Your task to perform on an android device: all mails in gmail Image 0: 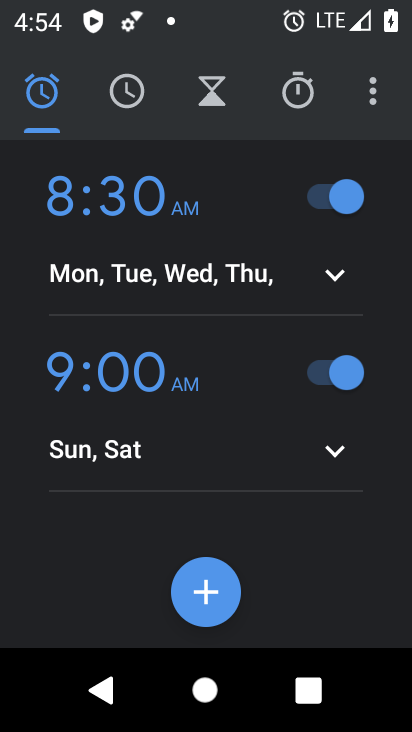
Step 0: press home button
Your task to perform on an android device: all mails in gmail Image 1: 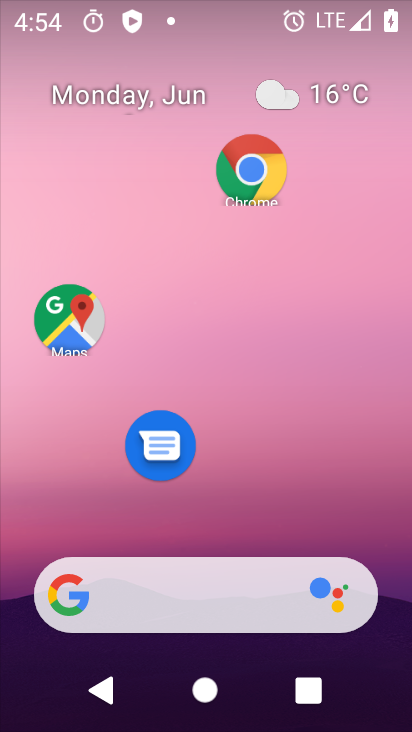
Step 1: drag from (235, 536) to (275, 285)
Your task to perform on an android device: all mails in gmail Image 2: 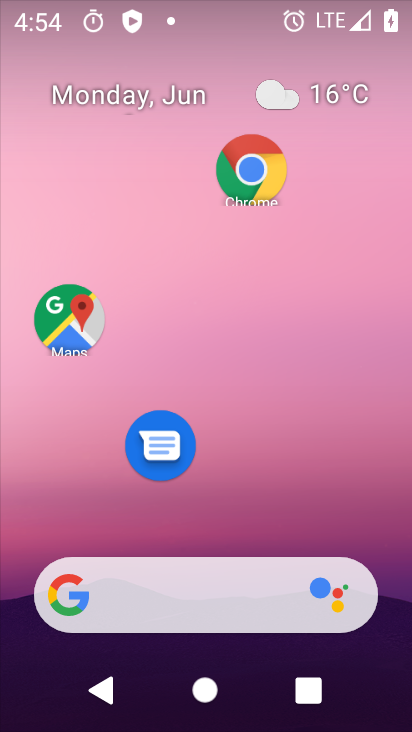
Step 2: drag from (222, 533) to (226, 7)
Your task to perform on an android device: all mails in gmail Image 3: 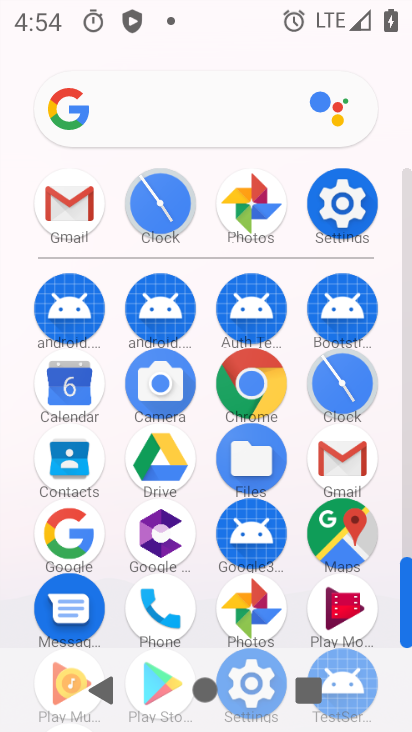
Step 3: click (62, 206)
Your task to perform on an android device: all mails in gmail Image 4: 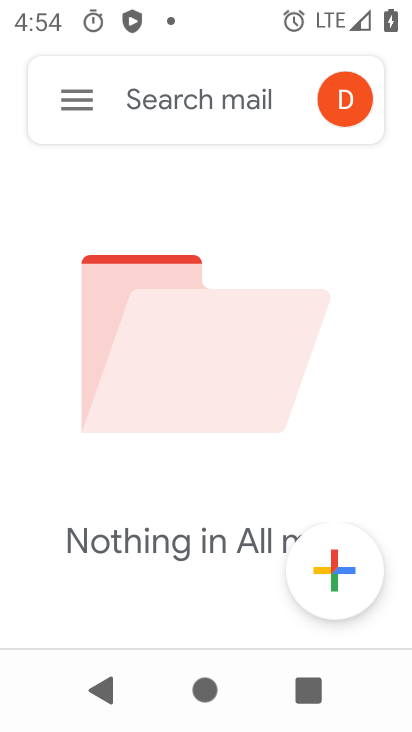
Step 4: click (69, 100)
Your task to perform on an android device: all mails in gmail Image 5: 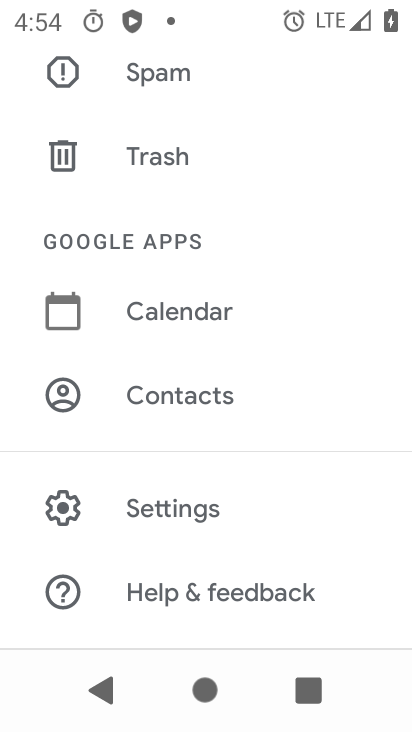
Step 5: drag from (181, 208) to (184, 335)
Your task to perform on an android device: all mails in gmail Image 6: 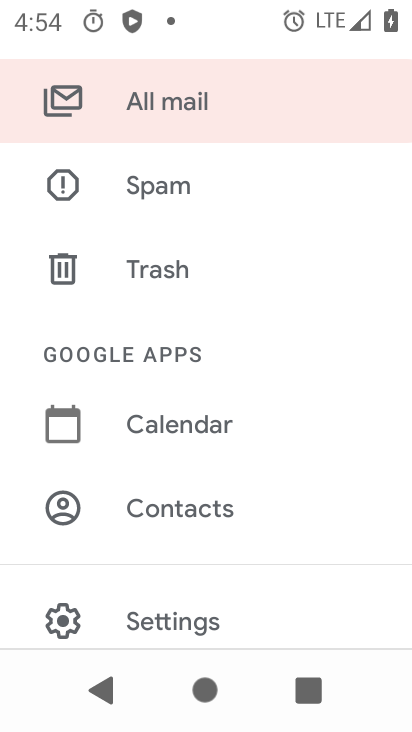
Step 6: click (189, 100)
Your task to perform on an android device: all mails in gmail Image 7: 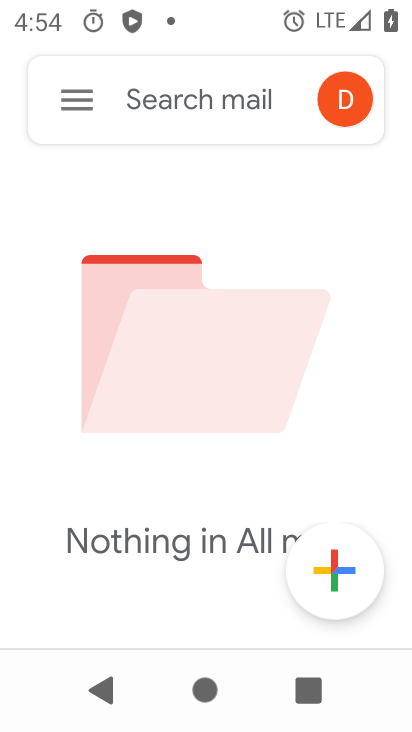
Step 7: task complete